Your task to perform on an android device: install app "Venmo" Image 0: 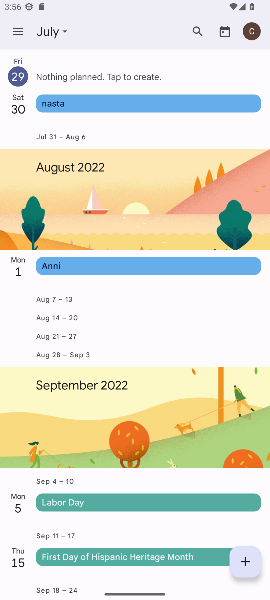
Step 0: press home button
Your task to perform on an android device: install app "Venmo" Image 1: 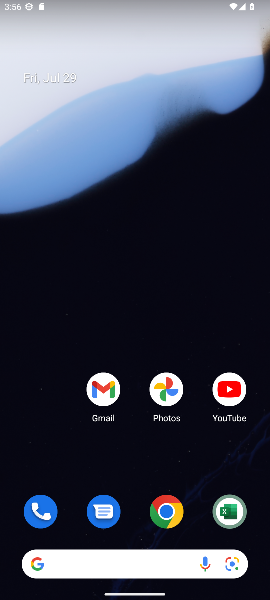
Step 1: drag from (24, 566) to (216, 4)
Your task to perform on an android device: install app "Venmo" Image 2: 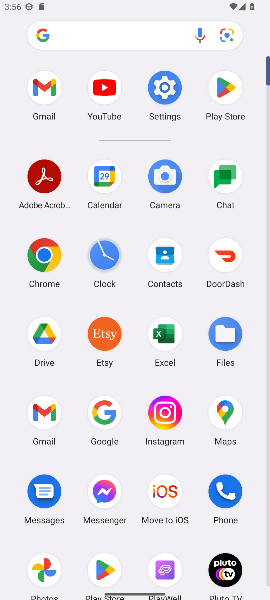
Step 2: click (103, 562)
Your task to perform on an android device: install app "Venmo" Image 3: 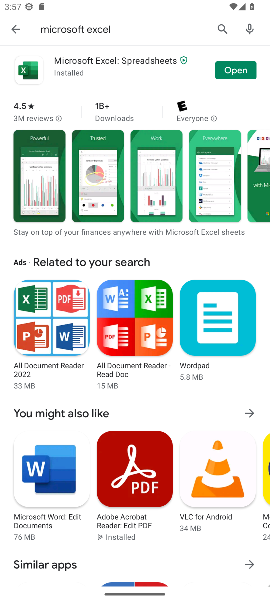
Step 3: click (18, 29)
Your task to perform on an android device: install app "Venmo" Image 4: 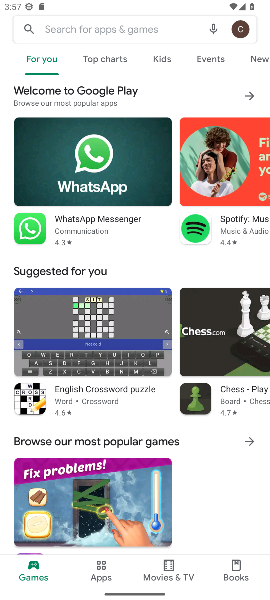
Step 4: click (67, 30)
Your task to perform on an android device: install app "Venmo" Image 5: 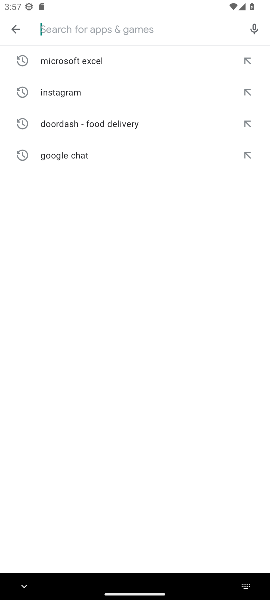
Step 5: type "Venmo"
Your task to perform on an android device: install app "Venmo" Image 6: 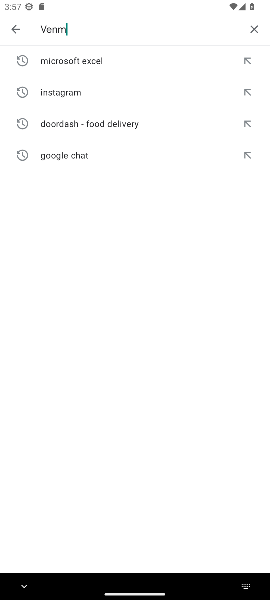
Step 6: type ""
Your task to perform on an android device: install app "Venmo" Image 7: 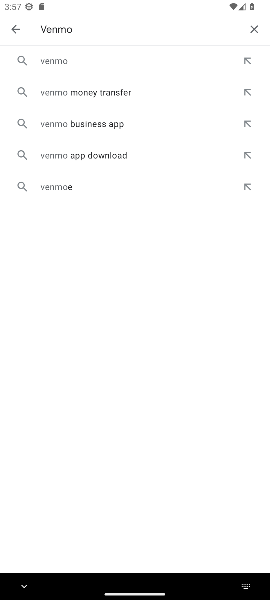
Step 7: click (58, 61)
Your task to perform on an android device: install app "Venmo" Image 8: 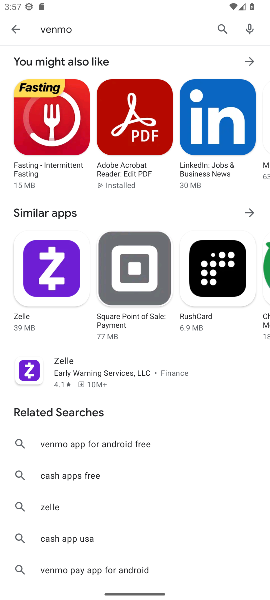
Step 8: click (69, 443)
Your task to perform on an android device: install app "Venmo" Image 9: 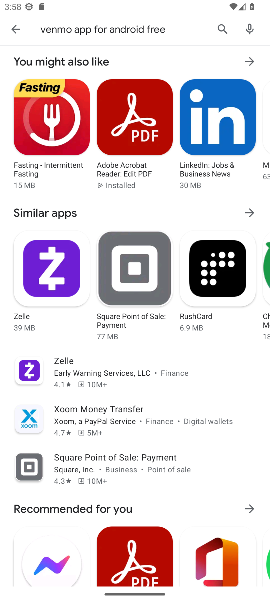
Step 9: task complete